Your task to perform on an android device: open app "Upside-Cash back on gas & food" (install if not already installed) and go to login screen Image 0: 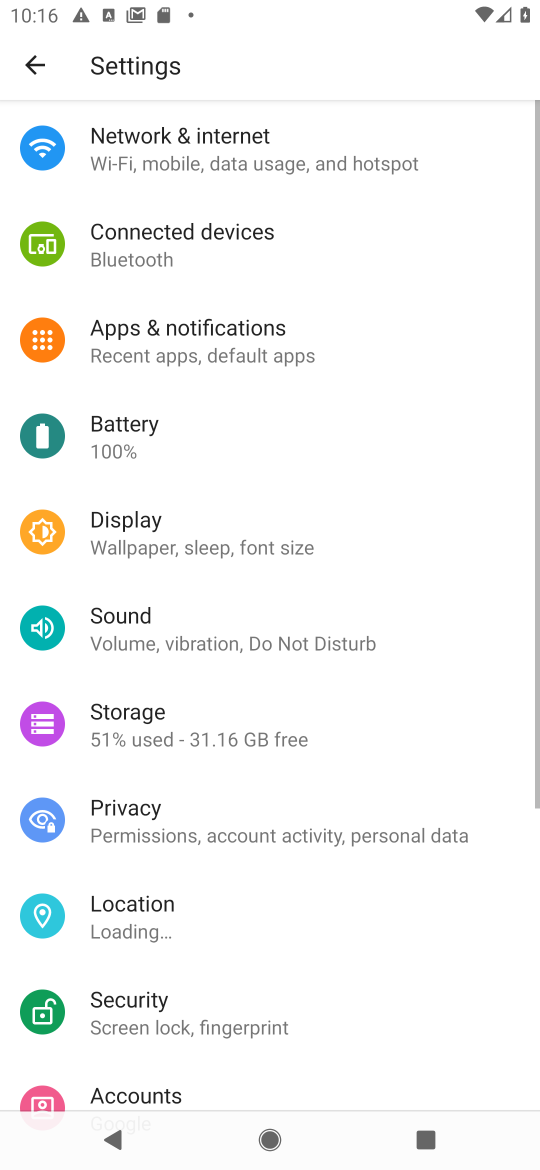
Step 0: press home button
Your task to perform on an android device: open app "Upside-Cash back on gas & food" (install if not already installed) and go to login screen Image 1: 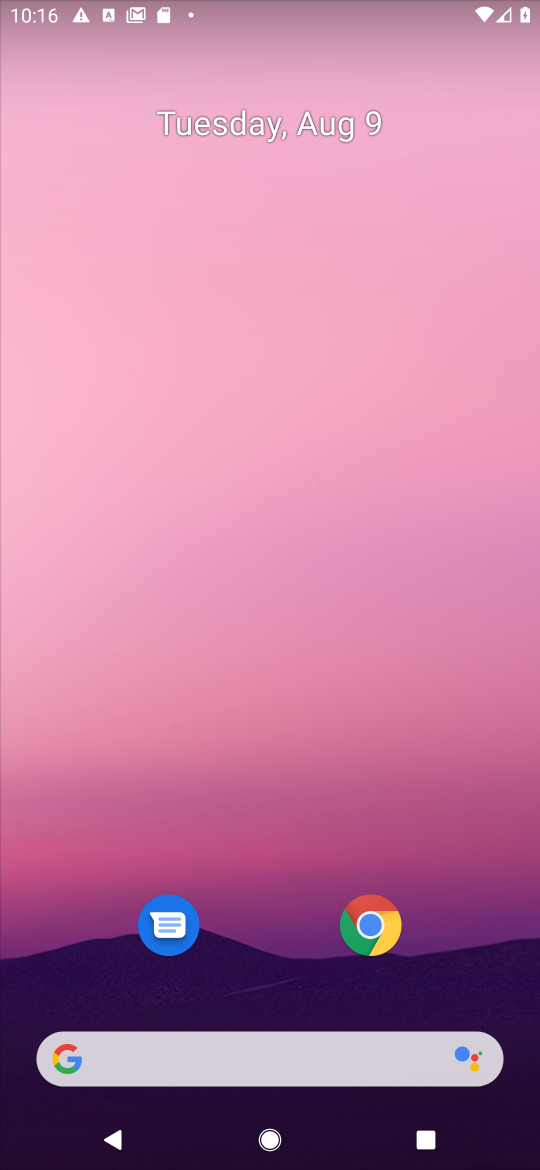
Step 1: drag from (261, 1000) to (198, 146)
Your task to perform on an android device: open app "Upside-Cash back on gas & food" (install if not already installed) and go to login screen Image 2: 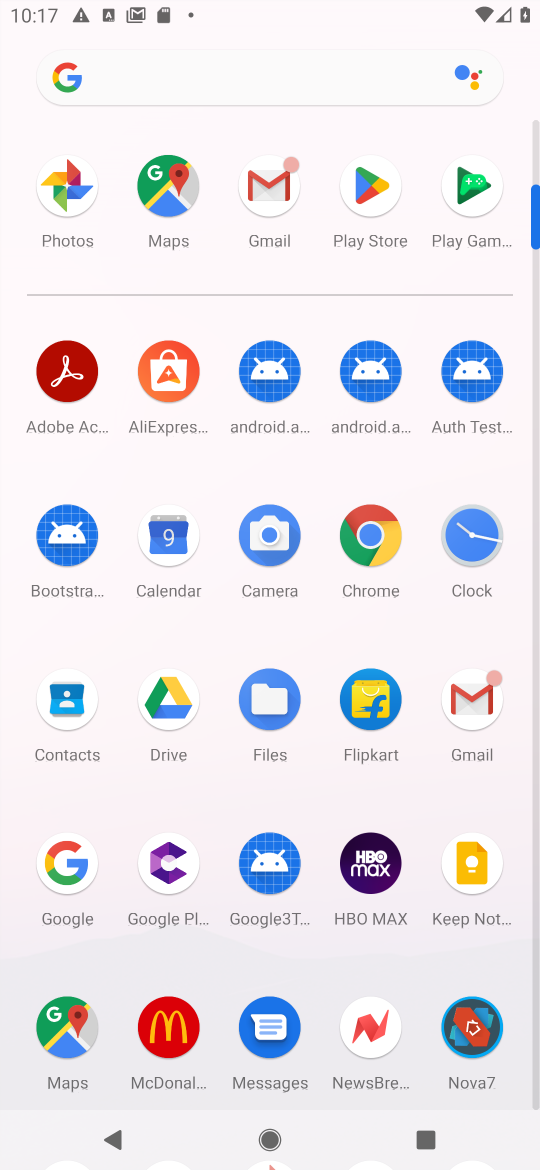
Step 2: click (371, 184)
Your task to perform on an android device: open app "Upside-Cash back on gas & food" (install if not already installed) and go to login screen Image 3: 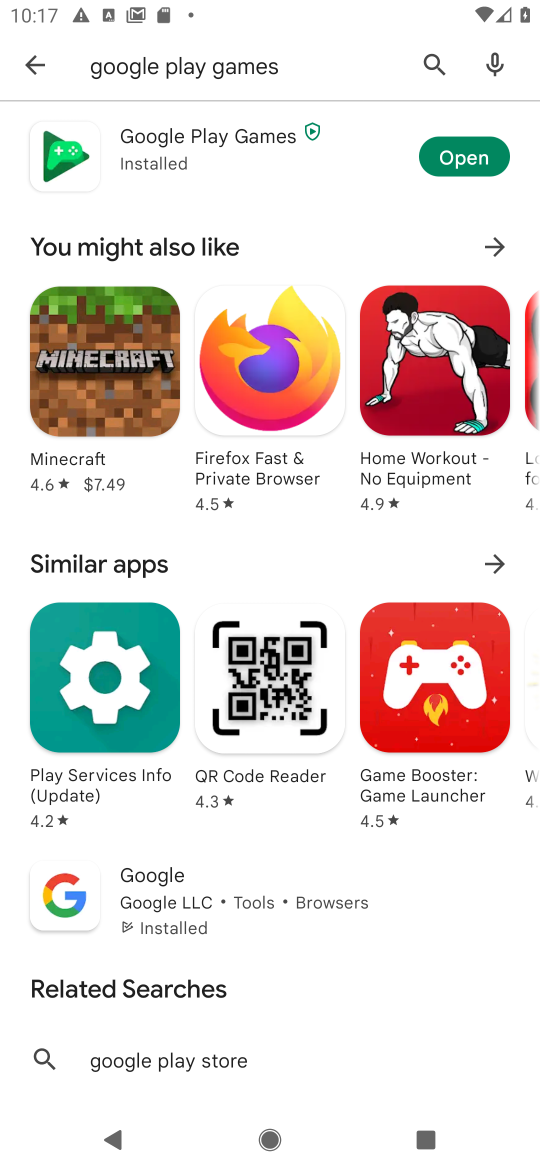
Step 3: click (28, 80)
Your task to perform on an android device: open app "Upside-Cash back on gas & food" (install if not already installed) and go to login screen Image 4: 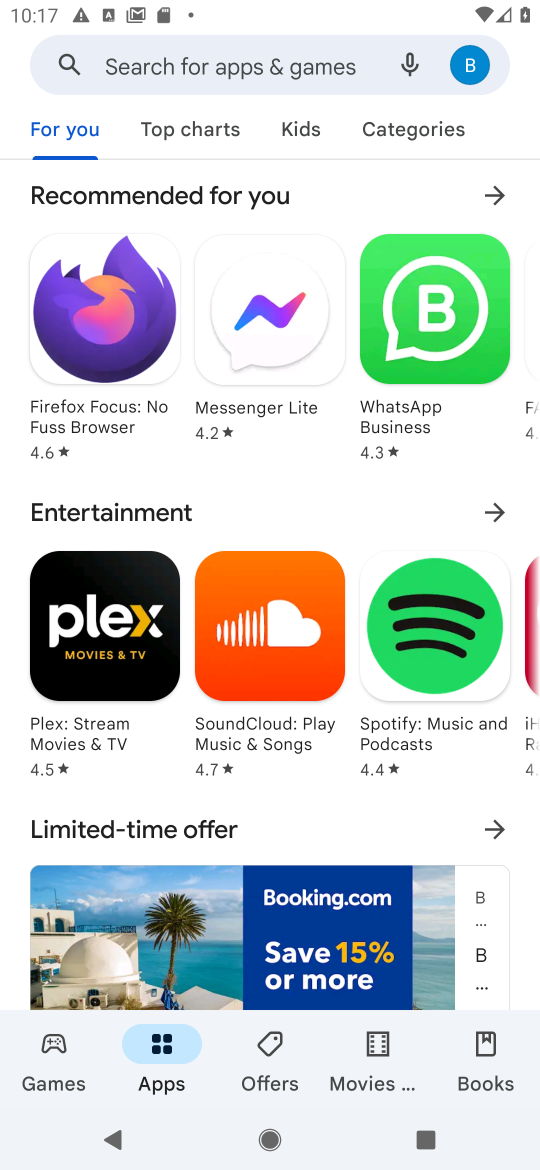
Step 4: click (271, 54)
Your task to perform on an android device: open app "Upside-Cash back on gas & food" (install if not already installed) and go to login screen Image 5: 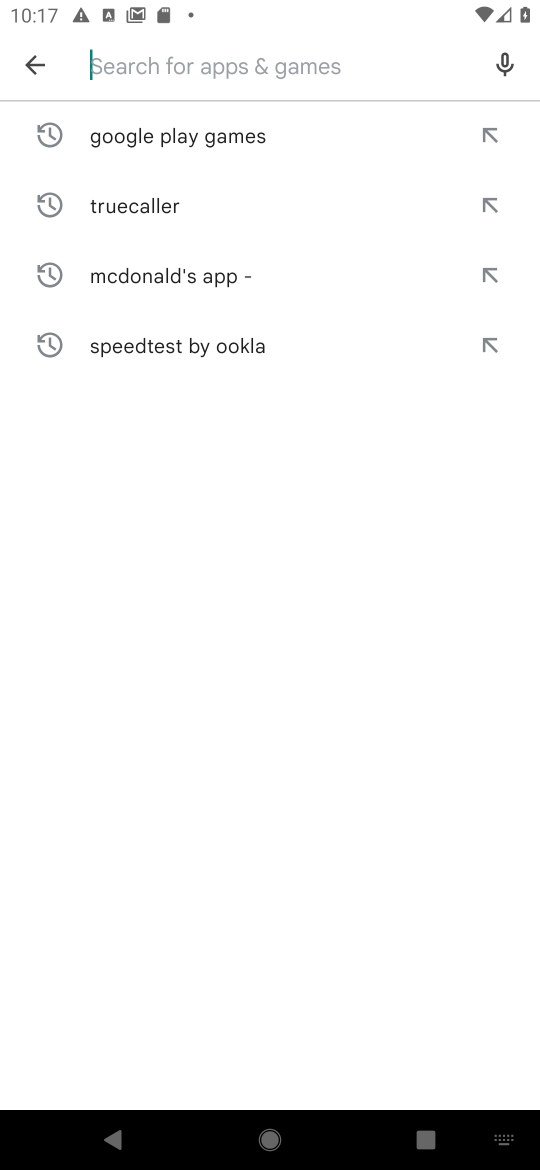
Step 5: type "Upside-Cash back on gas & food"
Your task to perform on an android device: open app "Upside-Cash back on gas & food" (install if not already installed) and go to login screen Image 6: 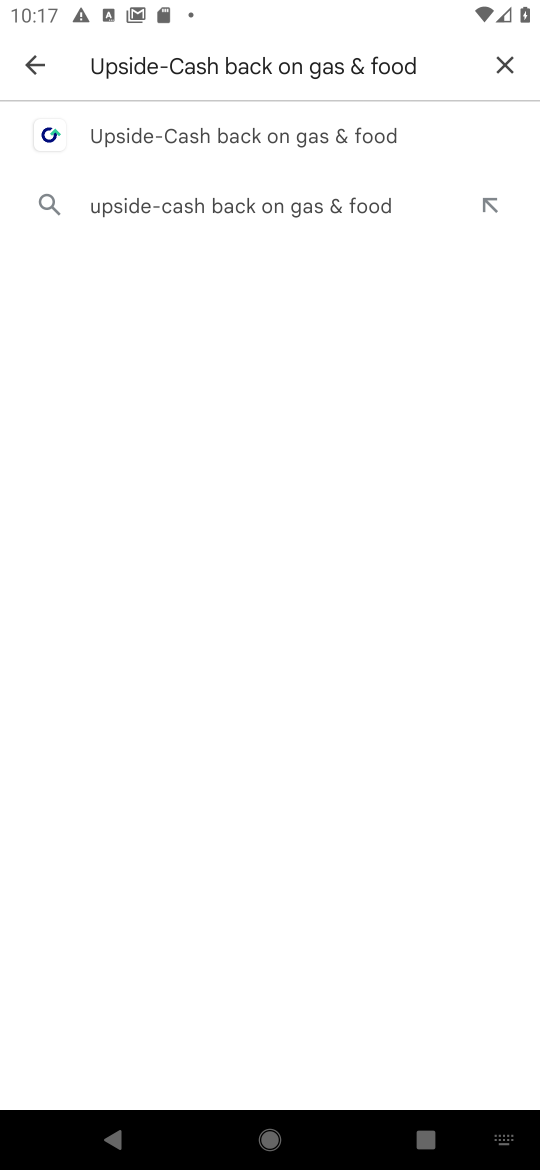
Step 6: click (226, 144)
Your task to perform on an android device: open app "Upside-Cash back on gas & food" (install if not already installed) and go to login screen Image 7: 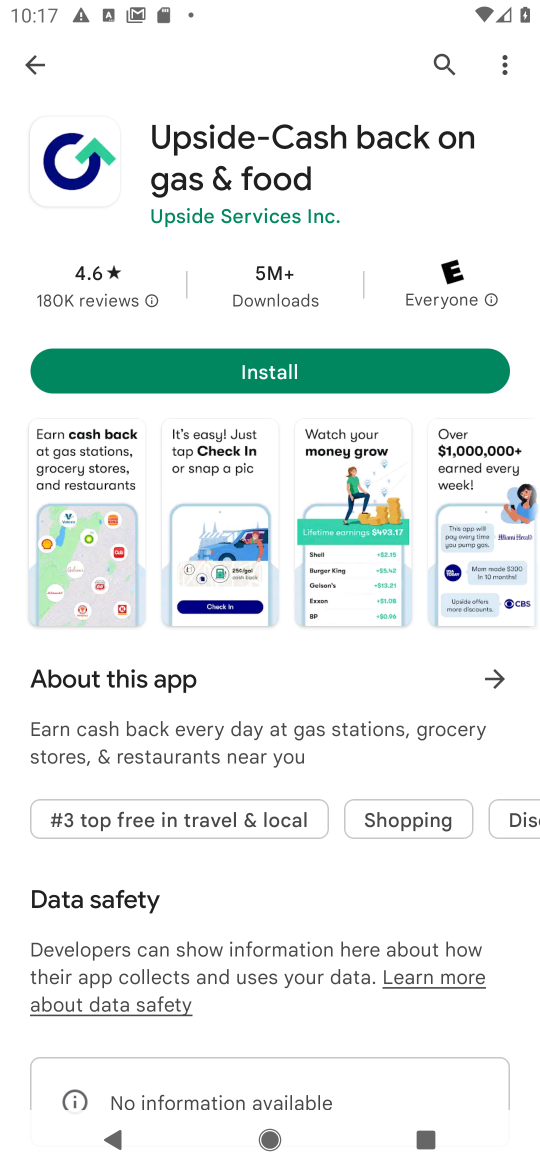
Step 7: click (287, 369)
Your task to perform on an android device: open app "Upside-Cash back on gas & food" (install if not already installed) and go to login screen Image 8: 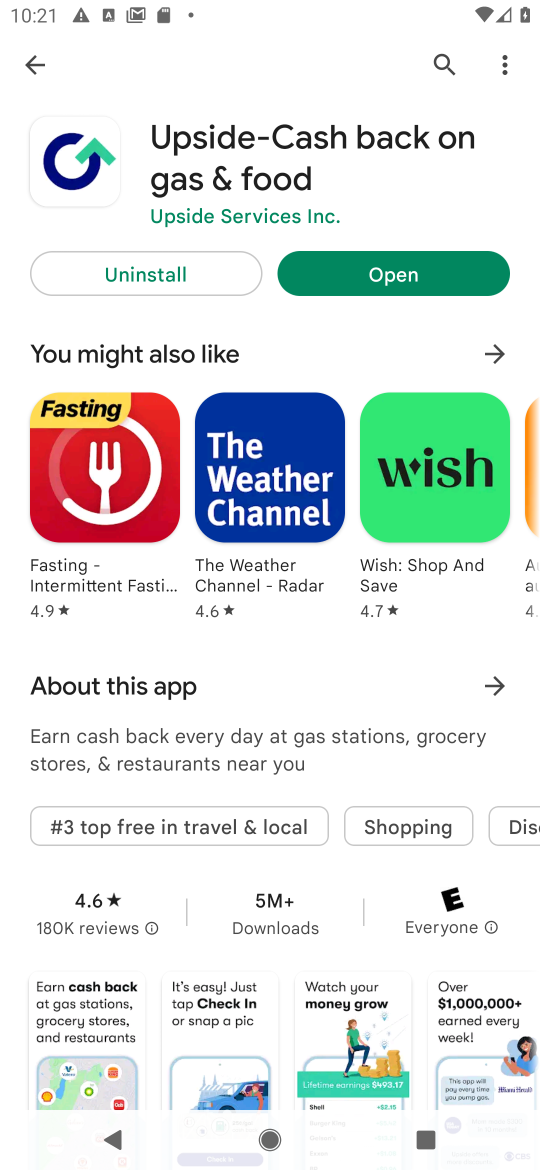
Step 8: click (419, 280)
Your task to perform on an android device: open app "Upside-Cash back on gas & food" (install if not already installed) and go to login screen Image 9: 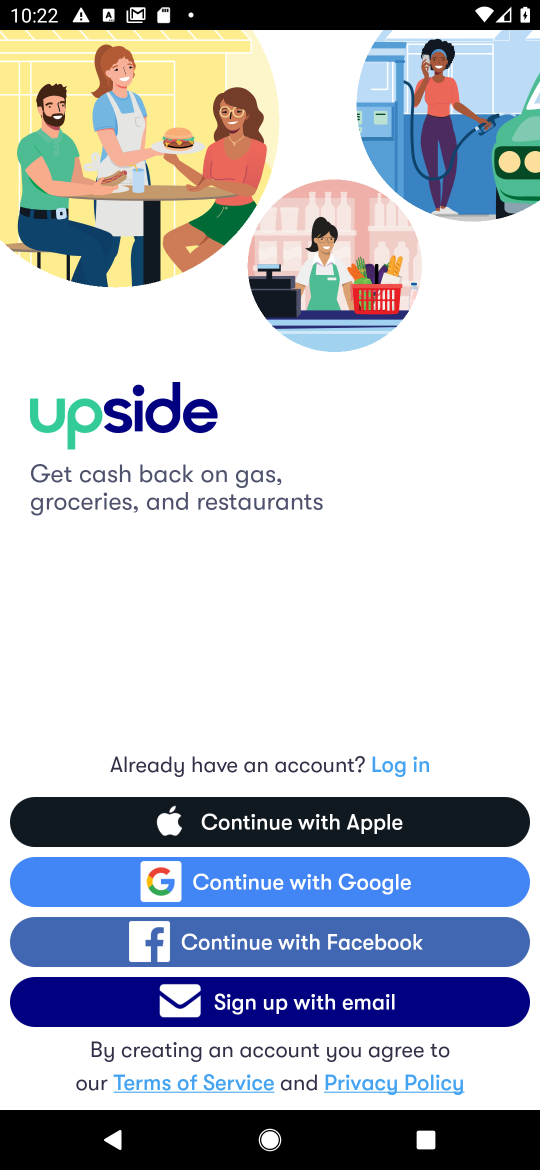
Step 9: task complete